Your task to perform on an android device: What's the weather like in Beijing? Image 0: 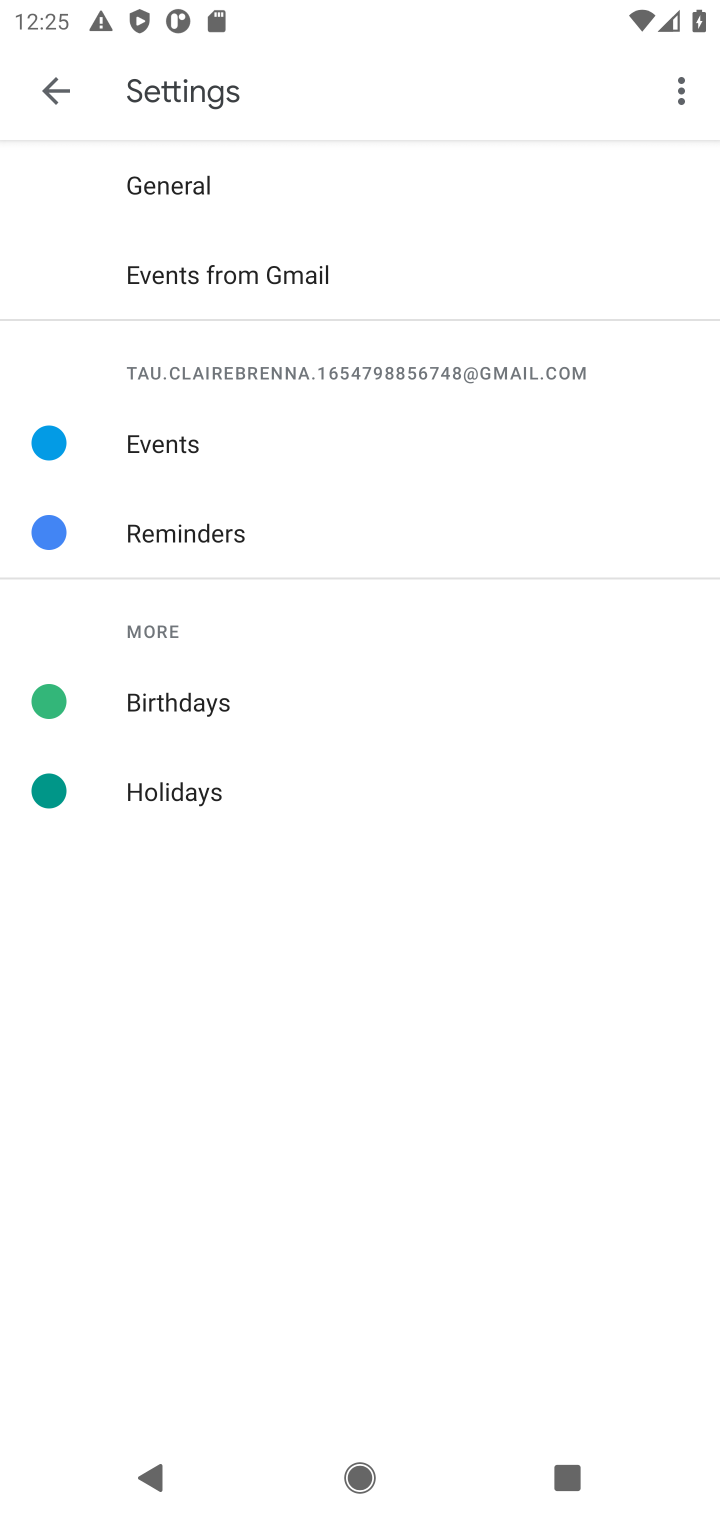
Step 0: press home button
Your task to perform on an android device: What's the weather like in Beijing? Image 1: 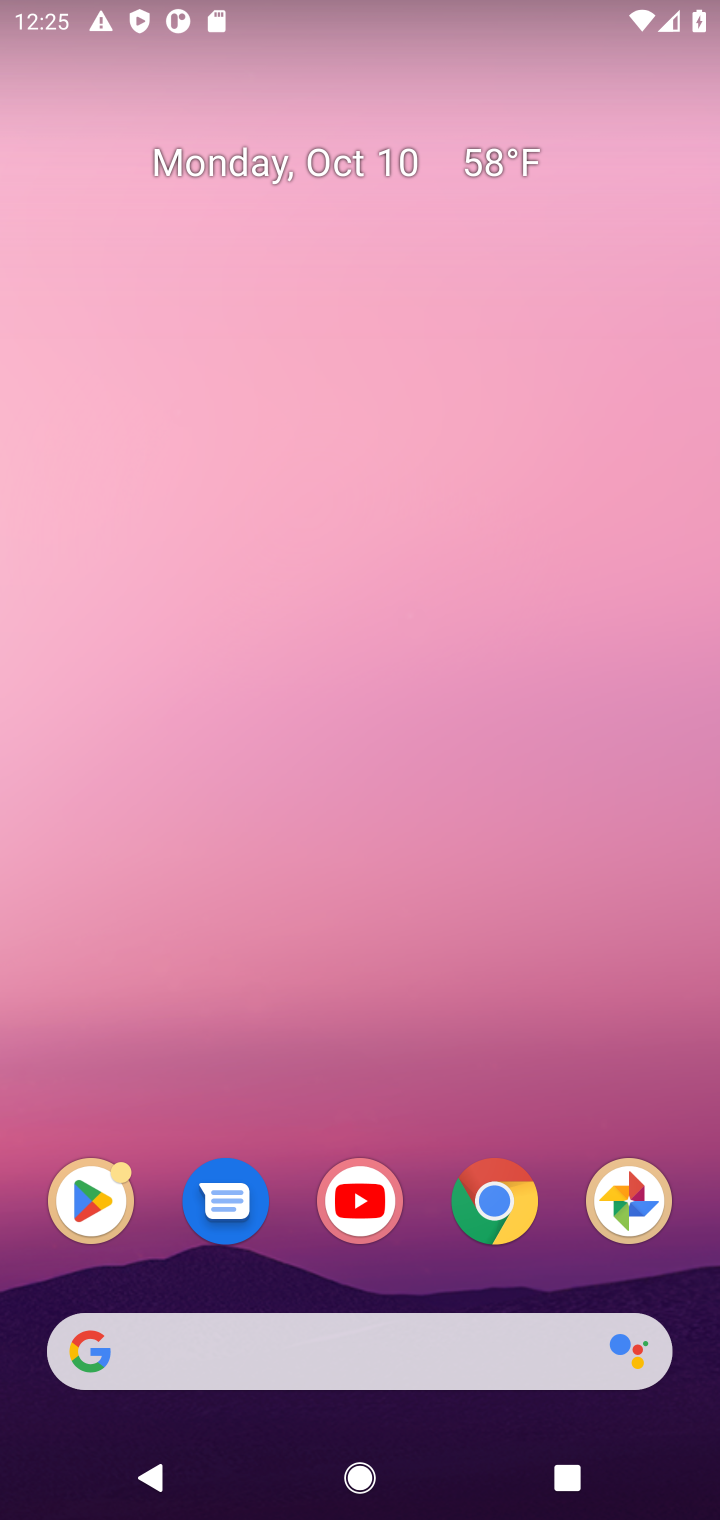
Step 1: click (485, 1188)
Your task to perform on an android device: What's the weather like in Beijing? Image 2: 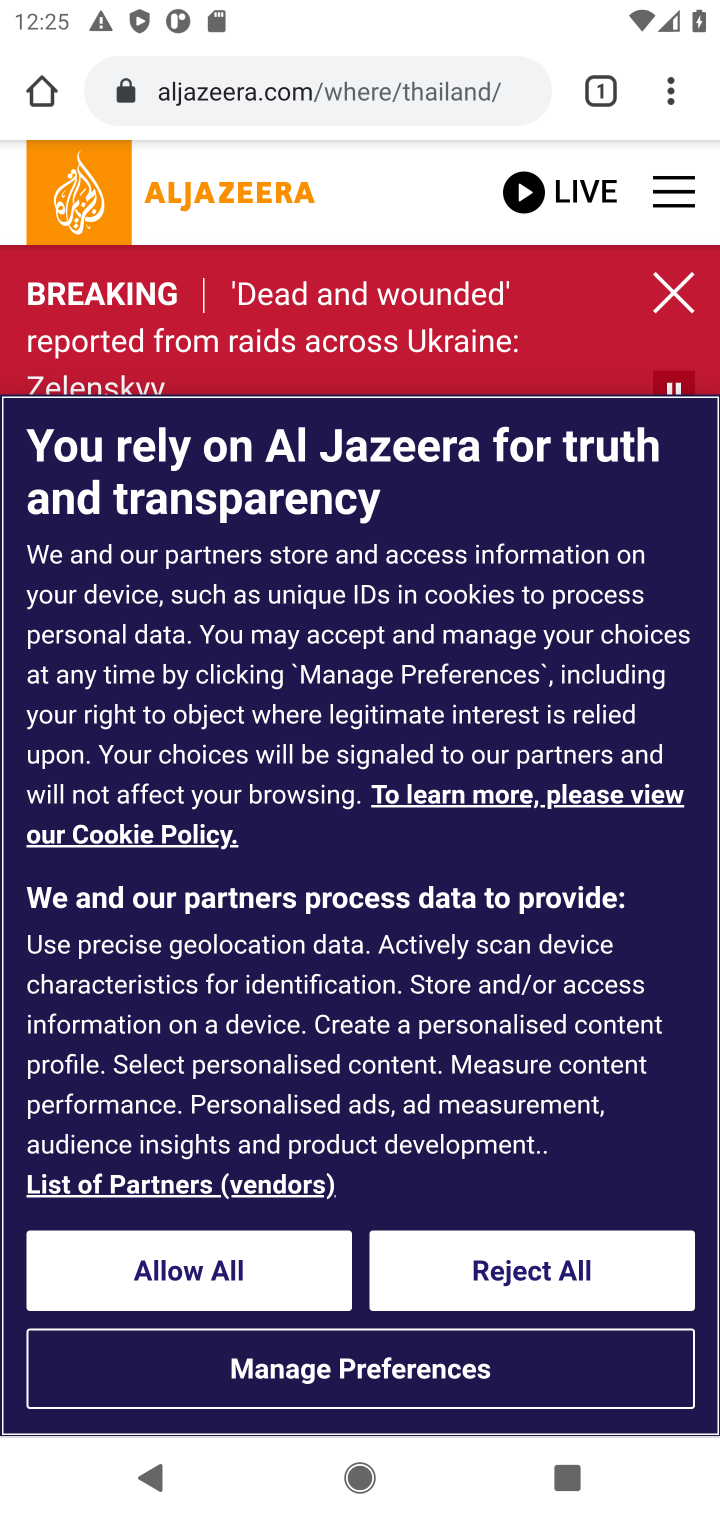
Step 2: click (293, 92)
Your task to perform on an android device: What's the weather like in Beijing? Image 3: 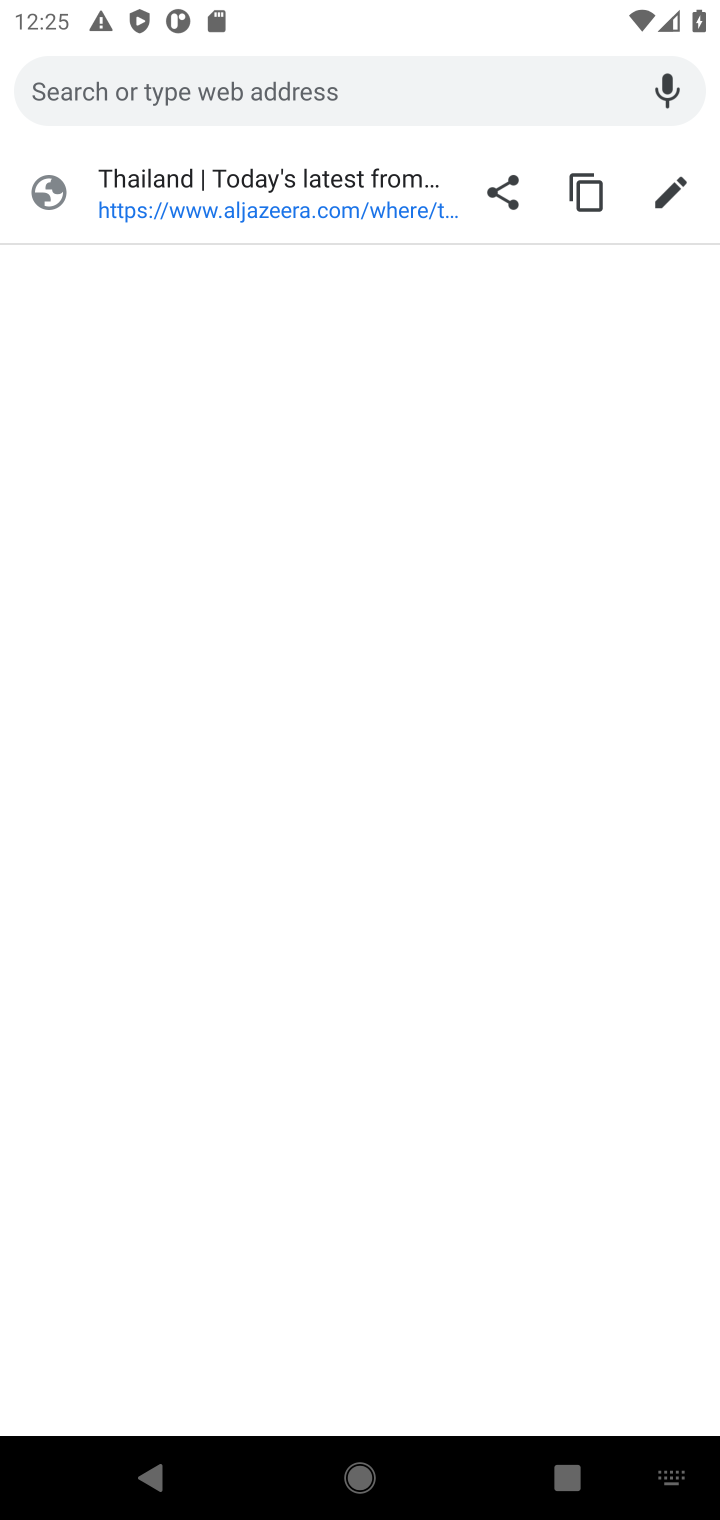
Step 3: type "What's the weather like in Beijing?"
Your task to perform on an android device: What's the weather like in Beijing? Image 4: 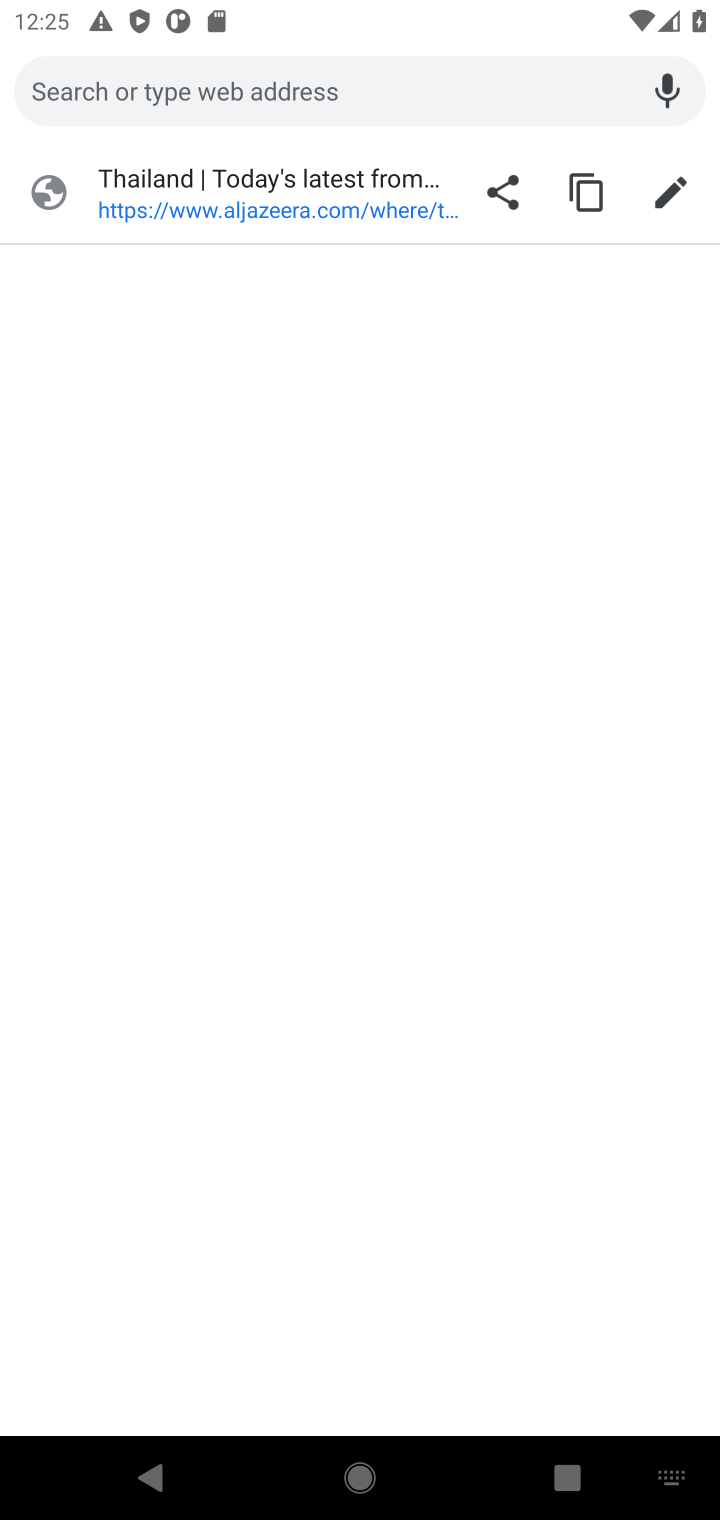
Step 4: click (362, 97)
Your task to perform on an android device: What's the weather like in Beijing? Image 5: 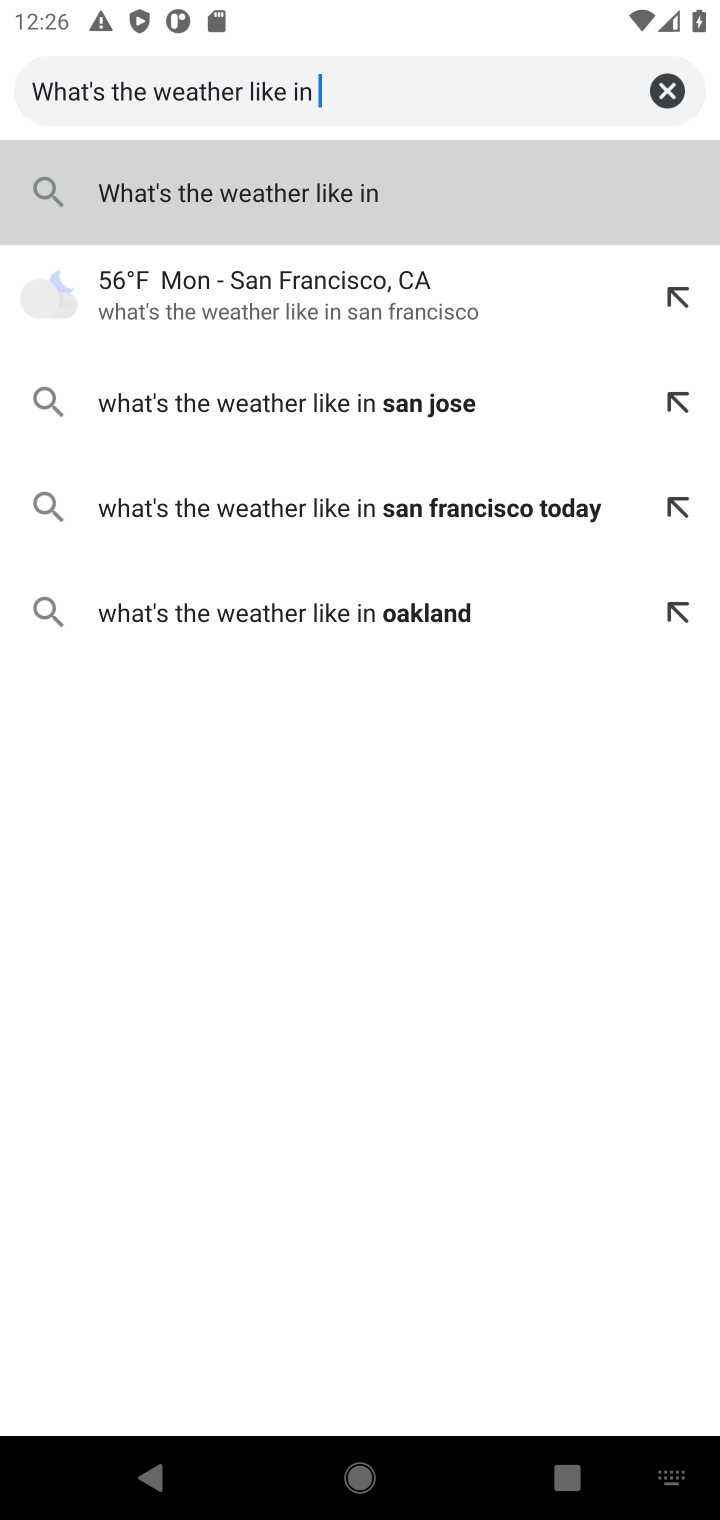
Step 5: type "beijing ?"
Your task to perform on an android device: What's the weather like in Beijing? Image 6: 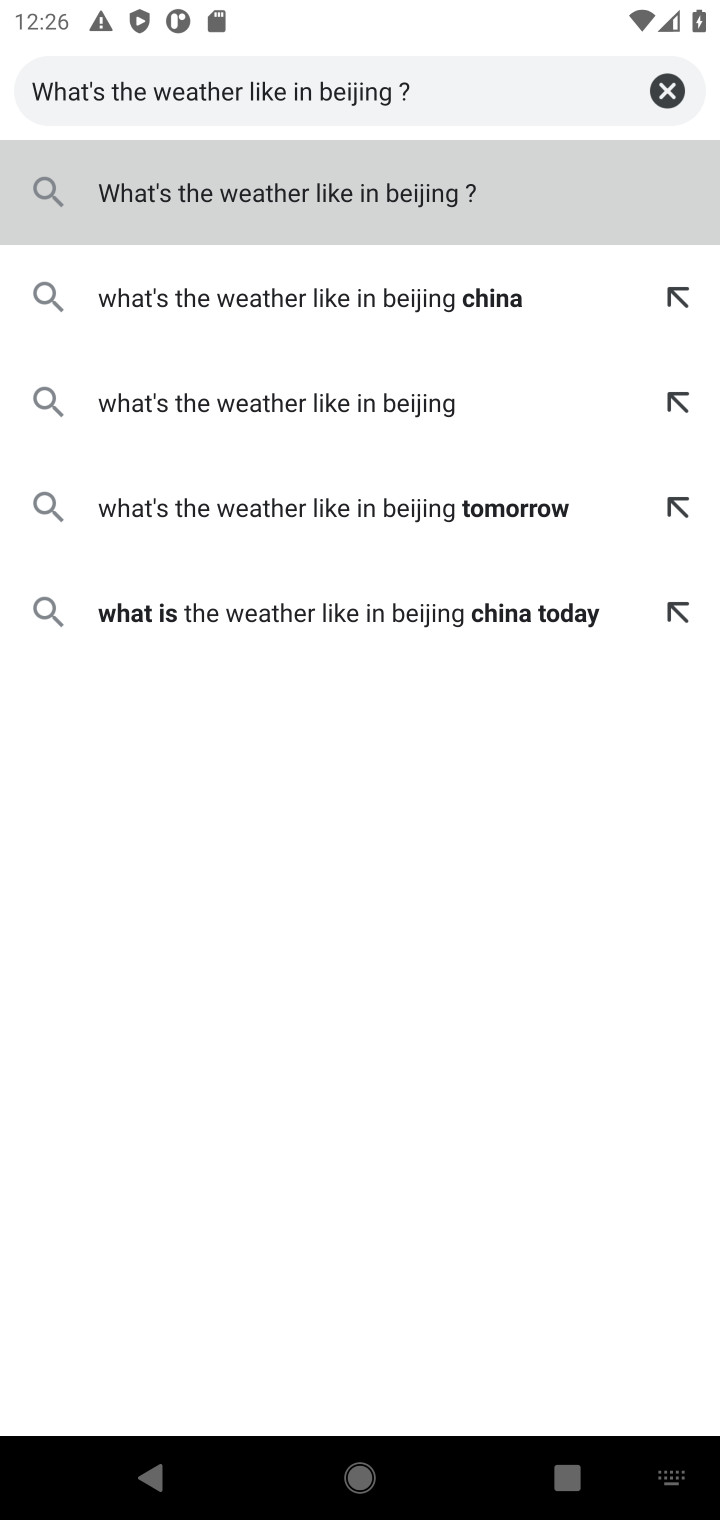
Step 6: click (517, 201)
Your task to perform on an android device: What's the weather like in Beijing? Image 7: 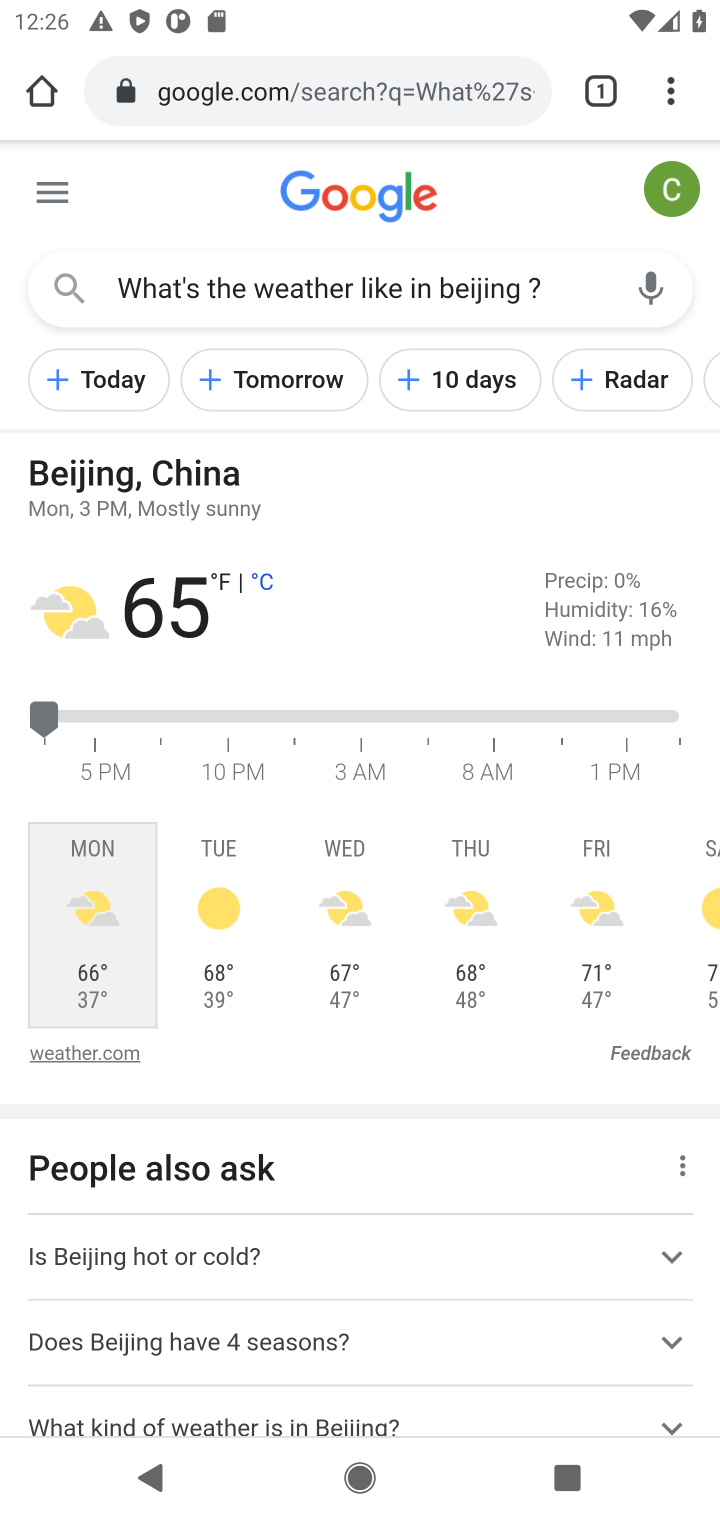
Step 7: task complete